Your task to perform on an android device: change the clock style Image 0: 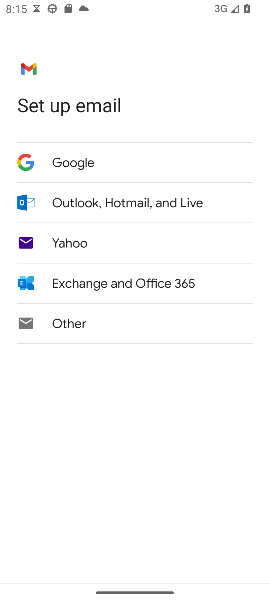
Step 0: press home button
Your task to perform on an android device: change the clock style Image 1: 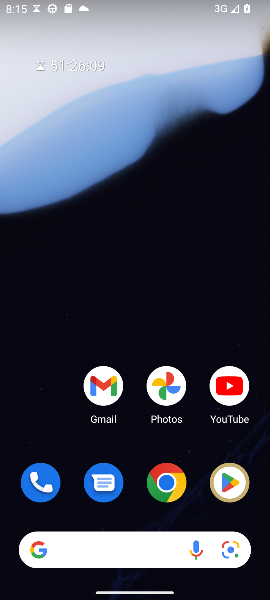
Step 1: drag from (144, 517) to (191, 110)
Your task to perform on an android device: change the clock style Image 2: 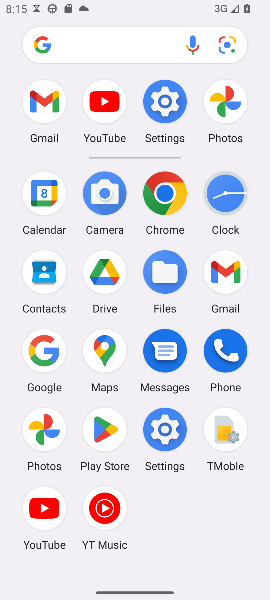
Step 2: click (224, 189)
Your task to perform on an android device: change the clock style Image 3: 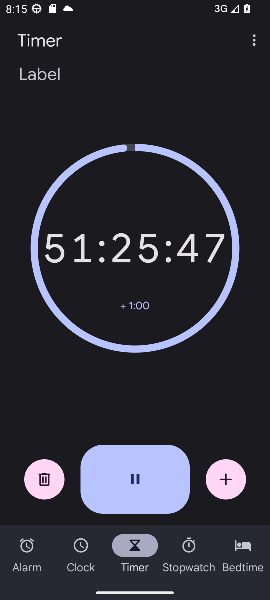
Step 3: click (255, 51)
Your task to perform on an android device: change the clock style Image 4: 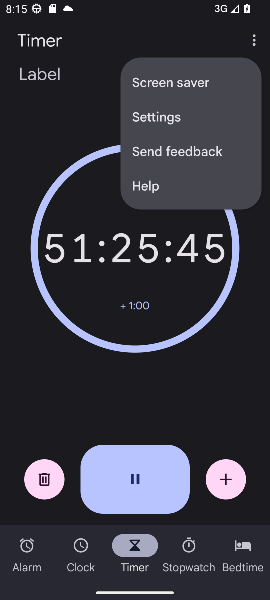
Step 4: click (158, 125)
Your task to perform on an android device: change the clock style Image 5: 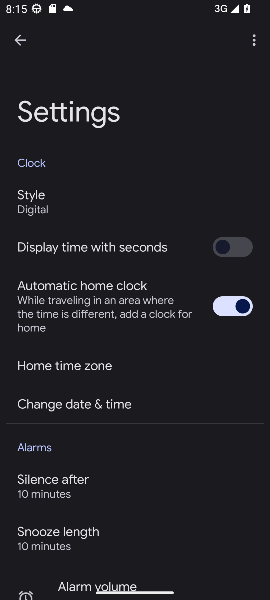
Step 5: click (34, 191)
Your task to perform on an android device: change the clock style Image 6: 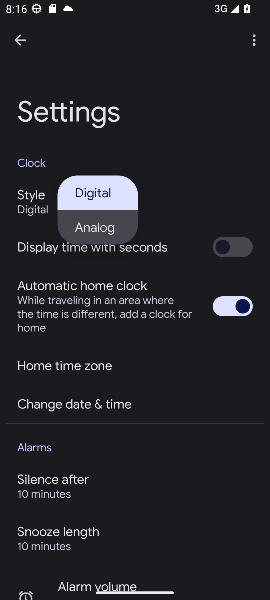
Step 6: click (93, 230)
Your task to perform on an android device: change the clock style Image 7: 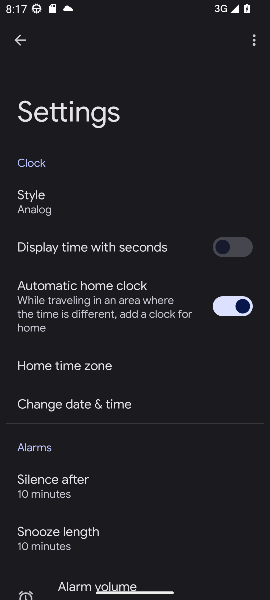
Step 7: task complete